Your task to perform on an android device: turn off translation in the chrome app Image 0: 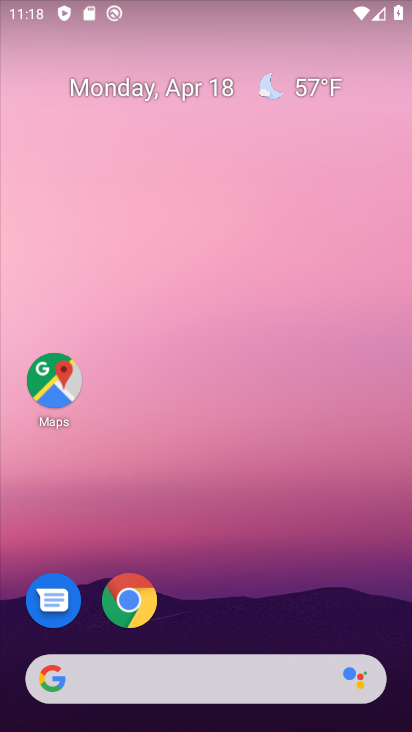
Step 0: click (136, 596)
Your task to perform on an android device: turn off translation in the chrome app Image 1: 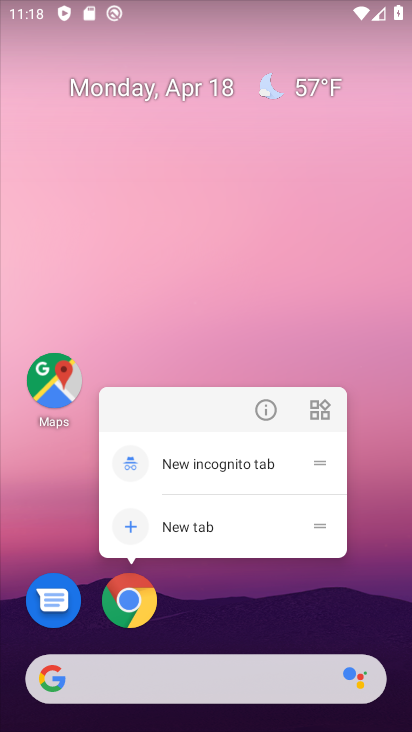
Step 1: click (127, 595)
Your task to perform on an android device: turn off translation in the chrome app Image 2: 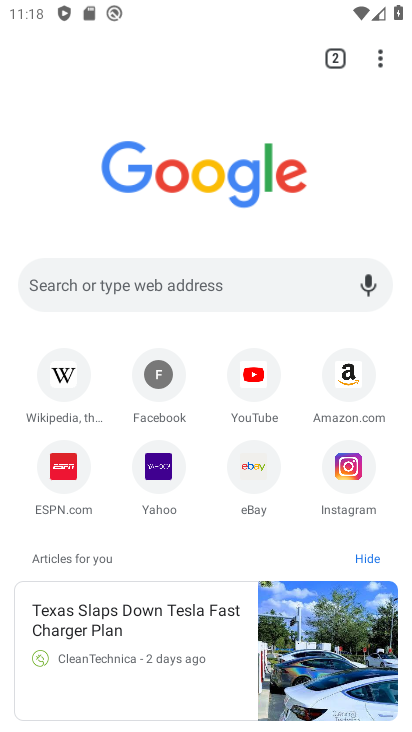
Step 2: click (381, 56)
Your task to perform on an android device: turn off translation in the chrome app Image 3: 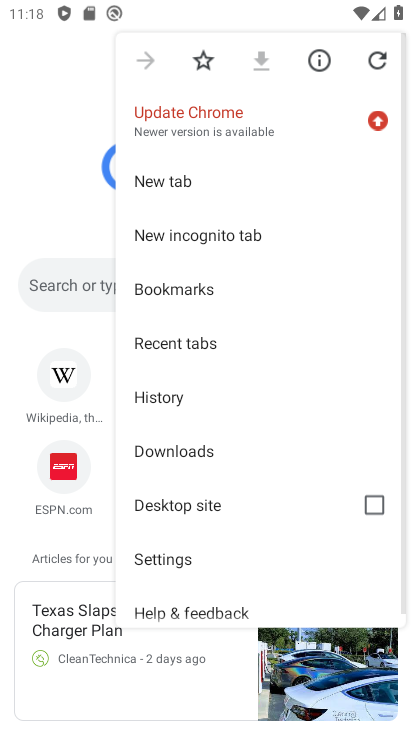
Step 3: click (182, 557)
Your task to perform on an android device: turn off translation in the chrome app Image 4: 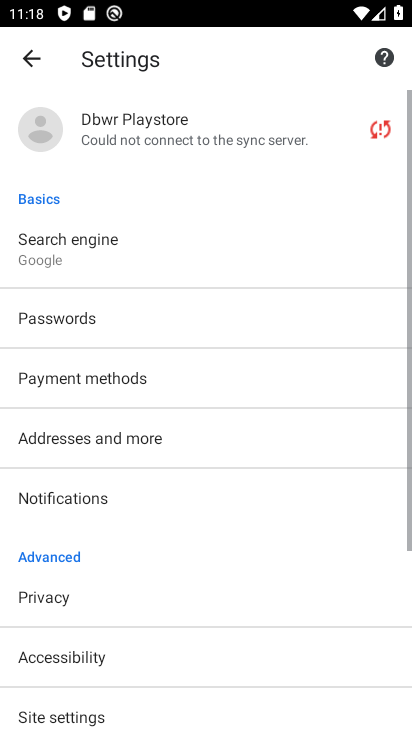
Step 4: drag from (152, 595) to (215, 160)
Your task to perform on an android device: turn off translation in the chrome app Image 5: 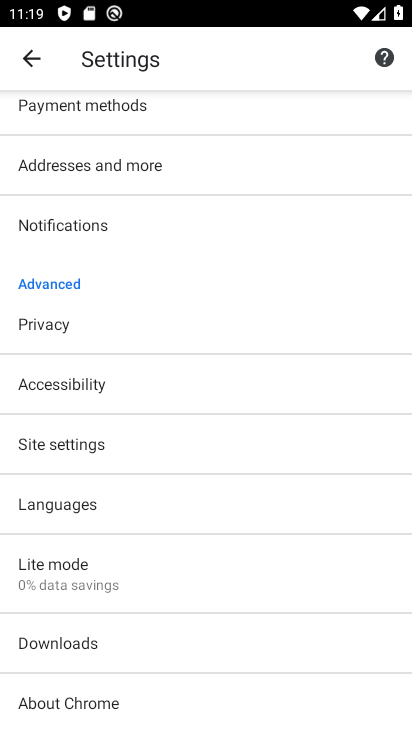
Step 5: click (78, 522)
Your task to perform on an android device: turn off translation in the chrome app Image 6: 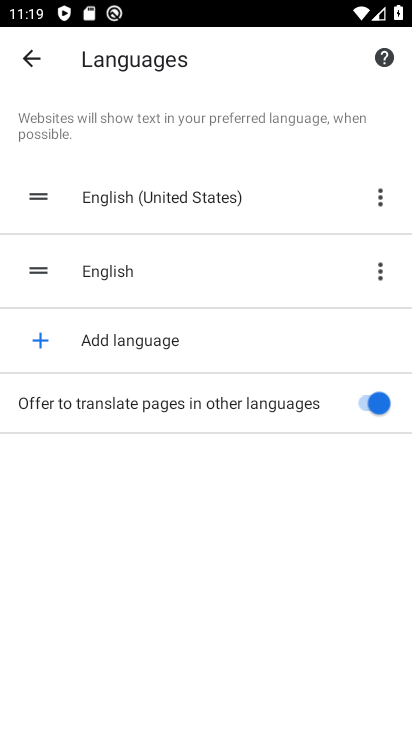
Step 6: click (377, 401)
Your task to perform on an android device: turn off translation in the chrome app Image 7: 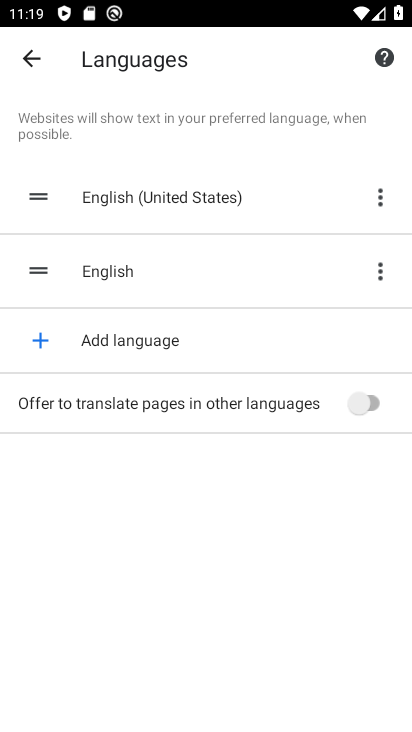
Step 7: task complete